Your task to perform on an android device: toggle location history Image 0: 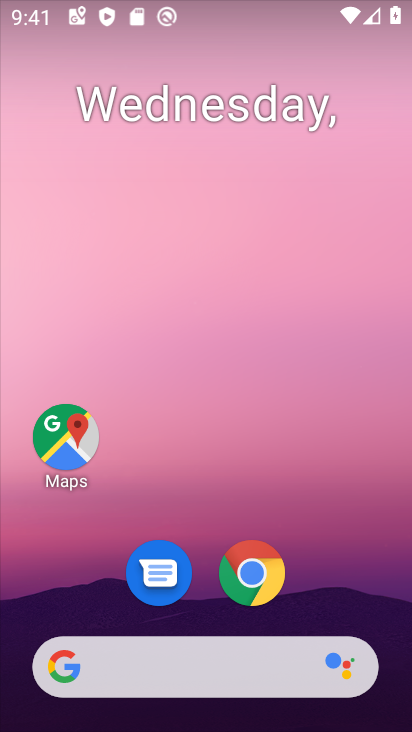
Step 0: drag from (376, 564) to (370, 219)
Your task to perform on an android device: toggle location history Image 1: 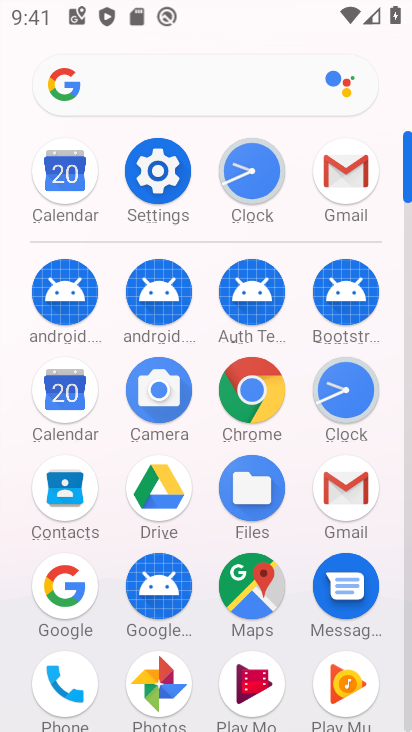
Step 1: click (138, 171)
Your task to perform on an android device: toggle location history Image 2: 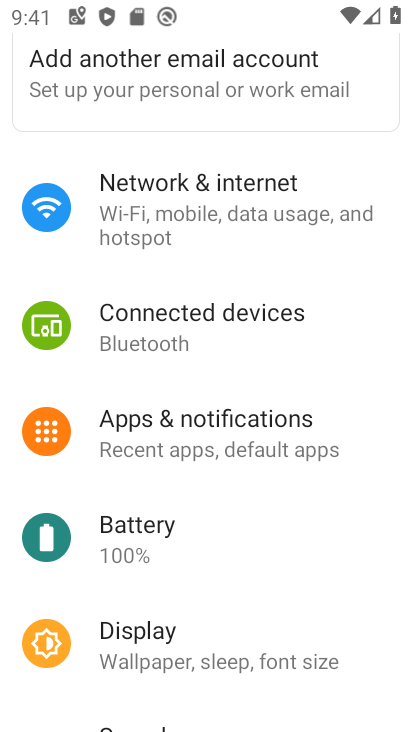
Step 2: drag from (344, 245) to (357, 312)
Your task to perform on an android device: toggle location history Image 3: 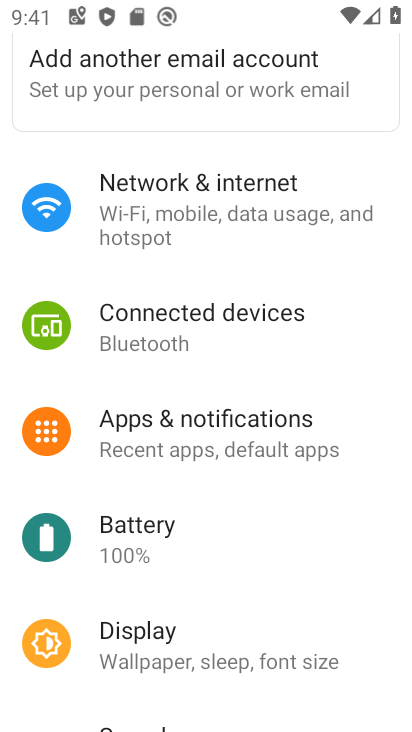
Step 3: drag from (383, 332) to (382, 281)
Your task to perform on an android device: toggle location history Image 4: 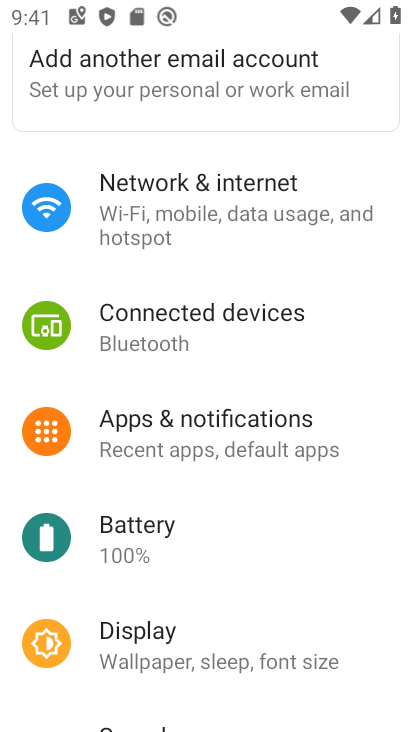
Step 4: drag from (370, 503) to (365, 285)
Your task to perform on an android device: toggle location history Image 5: 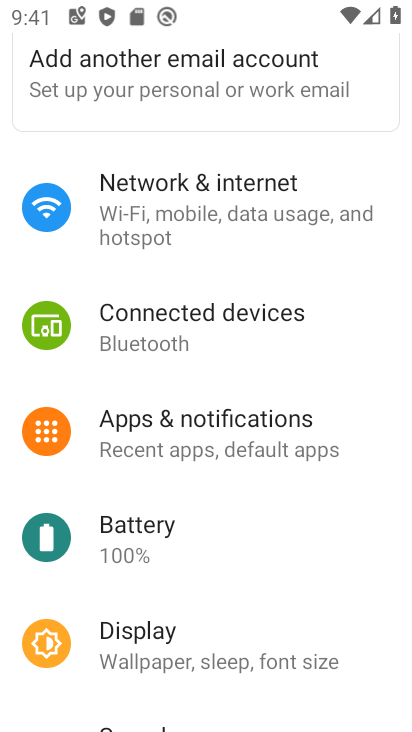
Step 5: drag from (366, 638) to (362, 322)
Your task to perform on an android device: toggle location history Image 6: 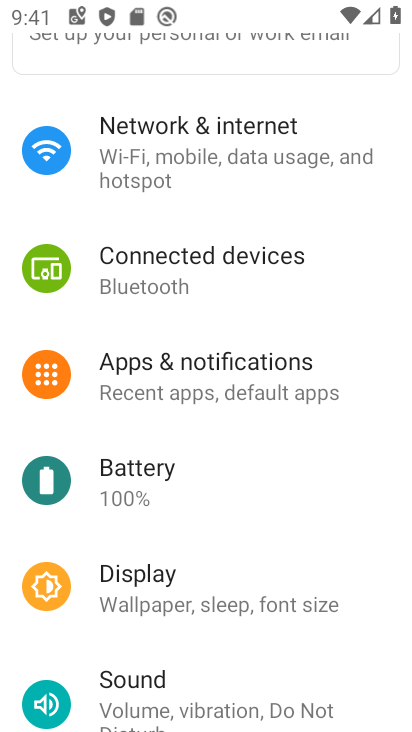
Step 6: drag from (360, 613) to (386, 226)
Your task to perform on an android device: toggle location history Image 7: 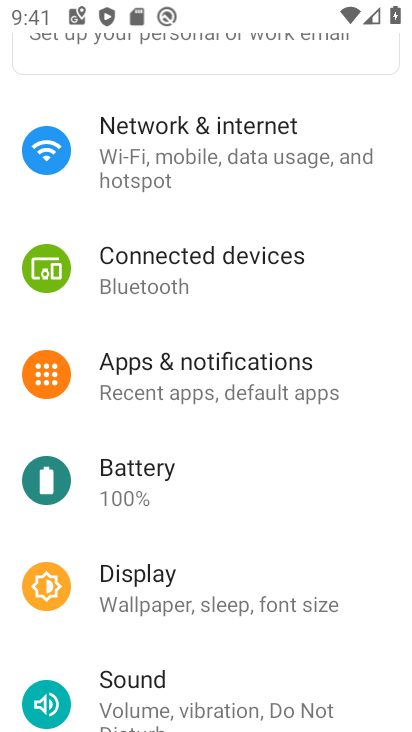
Step 7: drag from (368, 475) to (351, 279)
Your task to perform on an android device: toggle location history Image 8: 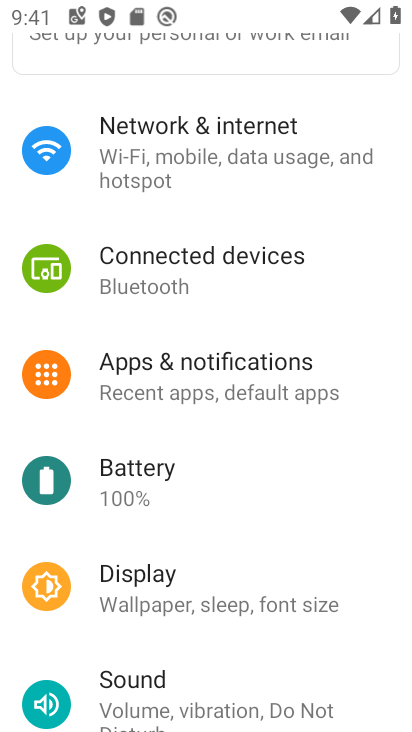
Step 8: drag from (398, 372) to (402, 275)
Your task to perform on an android device: toggle location history Image 9: 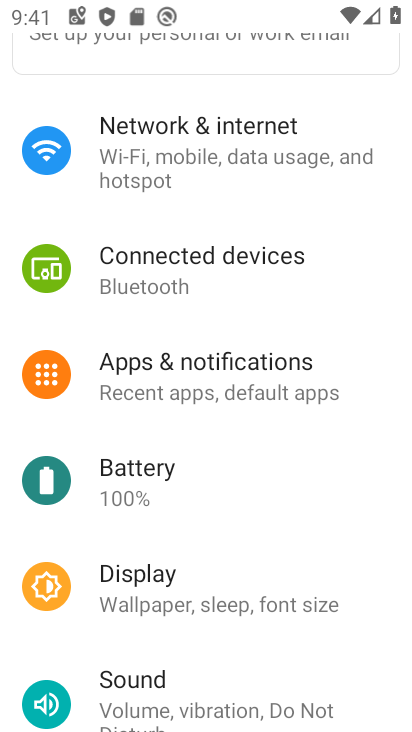
Step 9: drag from (390, 686) to (387, 273)
Your task to perform on an android device: toggle location history Image 10: 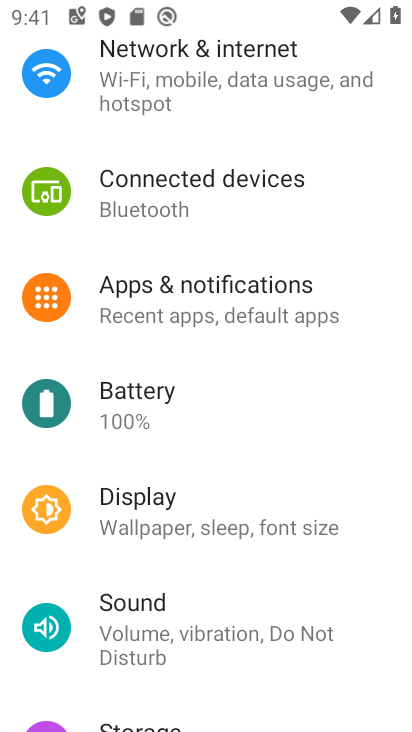
Step 10: drag from (382, 682) to (366, 231)
Your task to perform on an android device: toggle location history Image 11: 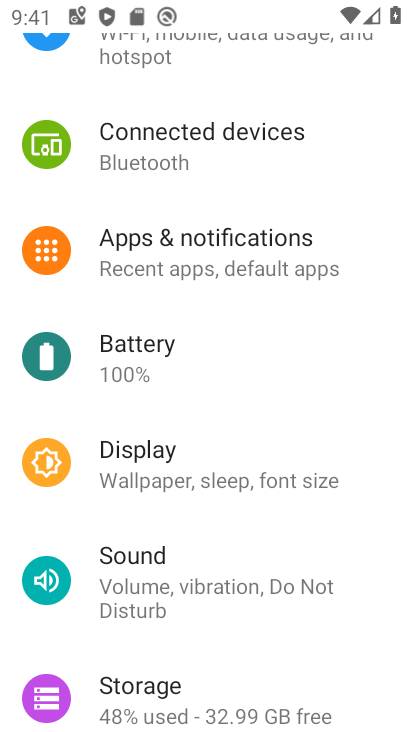
Step 11: click (397, 247)
Your task to perform on an android device: toggle location history Image 12: 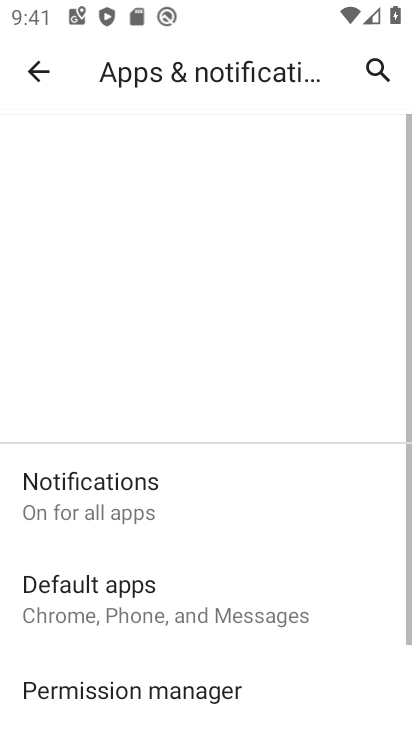
Step 12: drag from (367, 680) to (385, 368)
Your task to perform on an android device: toggle location history Image 13: 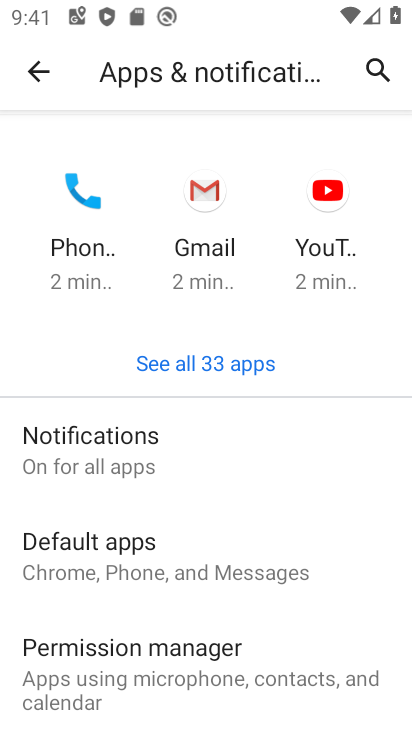
Step 13: press back button
Your task to perform on an android device: toggle location history Image 14: 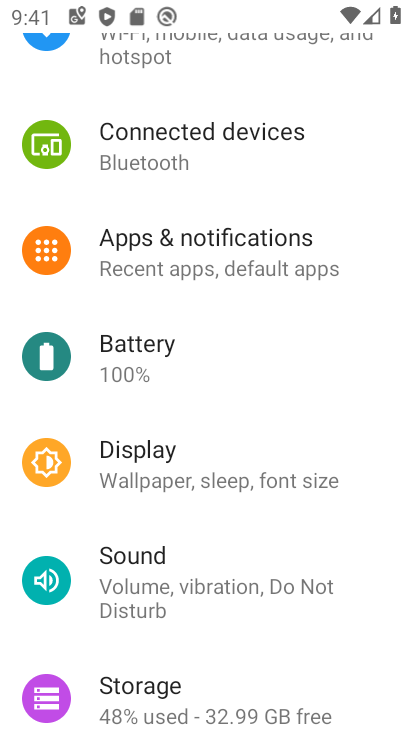
Step 14: drag from (366, 673) to (387, 232)
Your task to perform on an android device: toggle location history Image 15: 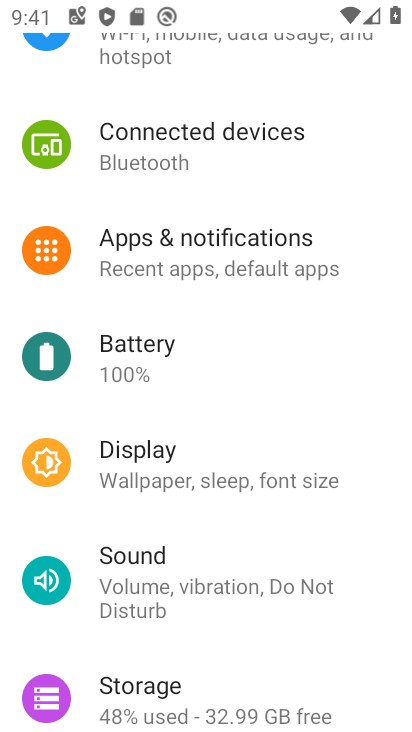
Step 15: drag from (395, 646) to (411, 223)
Your task to perform on an android device: toggle location history Image 16: 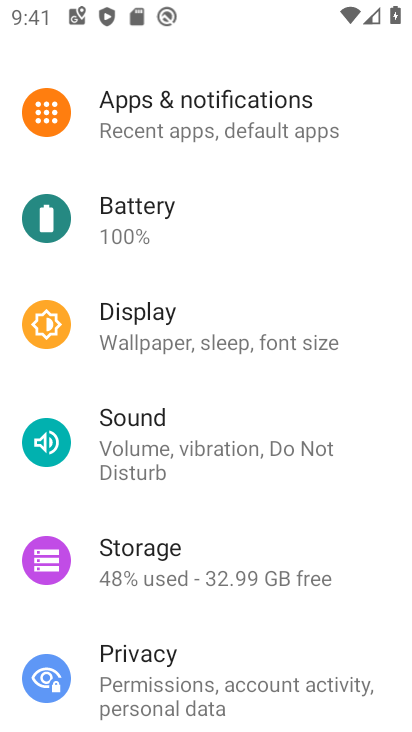
Step 16: drag from (379, 693) to (356, 304)
Your task to perform on an android device: toggle location history Image 17: 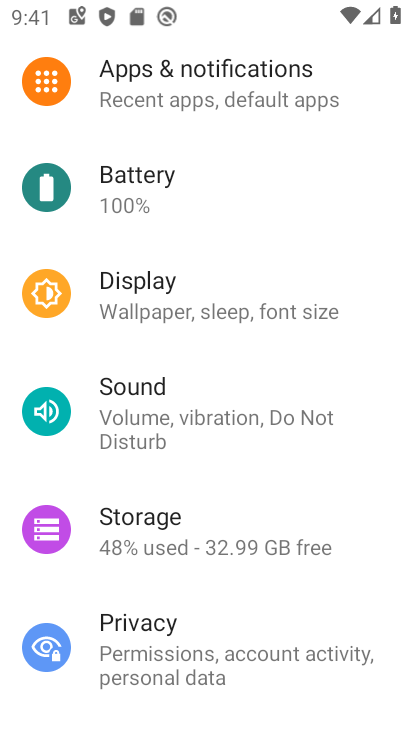
Step 17: drag from (386, 684) to (380, 343)
Your task to perform on an android device: toggle location history Image 18: 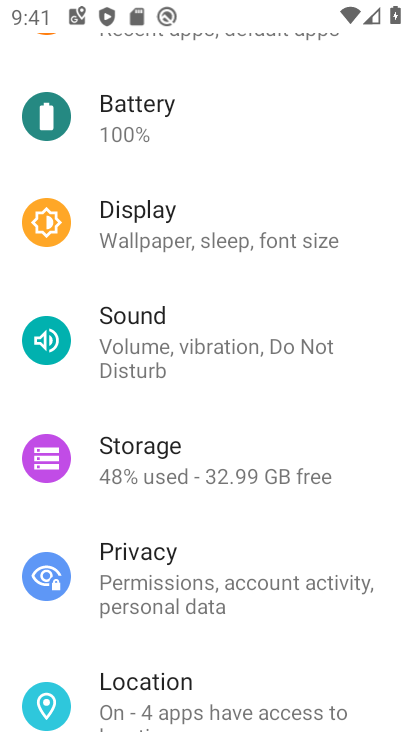
Step 18: click (154, 686)
Your task to perform on an android device: toggle location history Image 19: 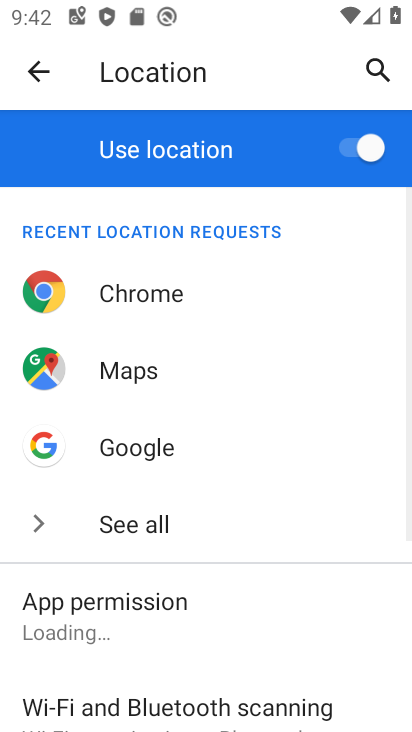
Step 19: drag from (308, 659) to (332, 285)
Your task to perform on an android device: toggle location history Image 20: 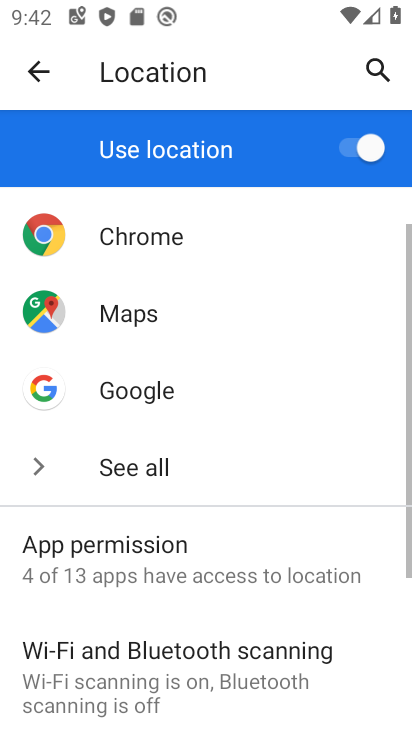
Step 20: drag from (337, 444) to (352, 275)
Your task to perform on an android device: toggle location history Image 21: 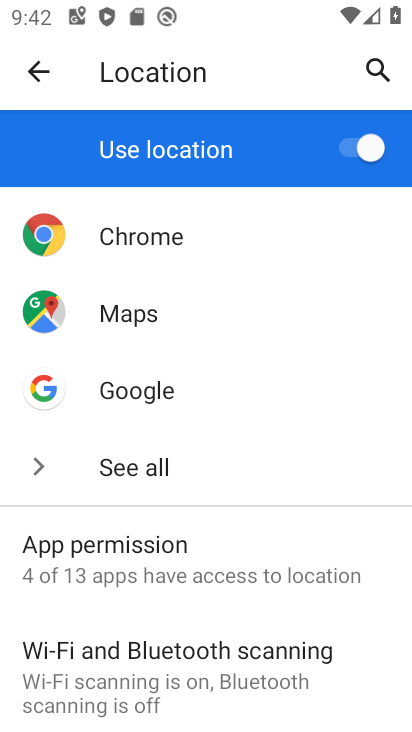
Step 21: drag from (382, 435) to (387, 256)
Your task to perform on an android device: toggle location history Image 22: 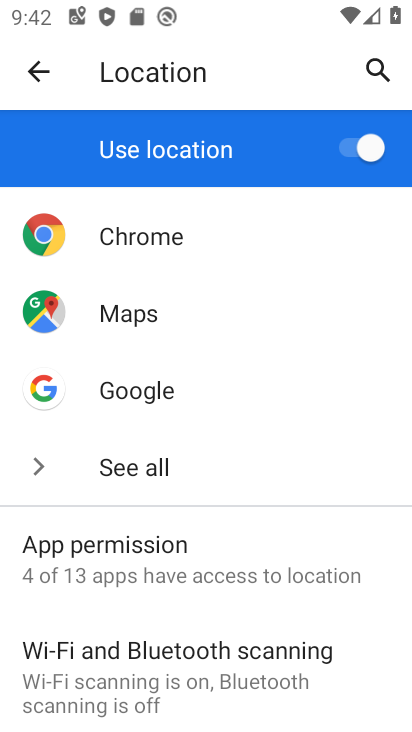
Step 22: drag from (374, 628) to (366, 307)
Your task to perform on an android device: toggle location history Image 23: 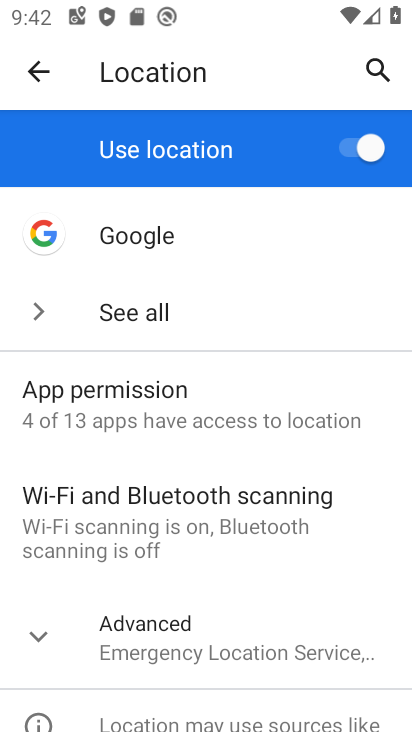
Step 23: click (58, 636)
Your task to perform on an android device: toggle location history Image 24: 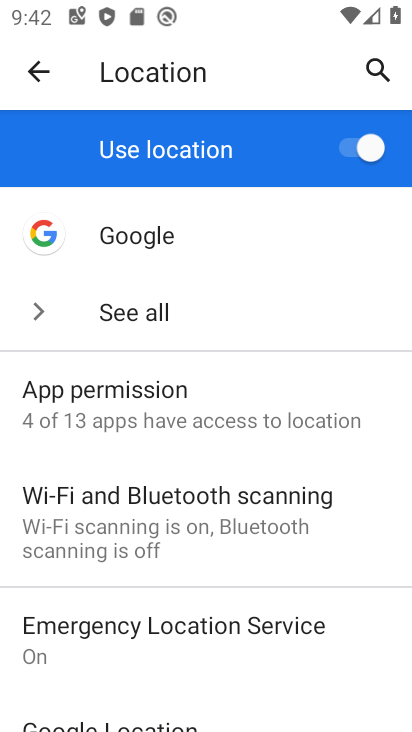
Step 24: drag from (342, 662) to (329, 333)
Your task to perform on an android device: toggle location history Image 25: 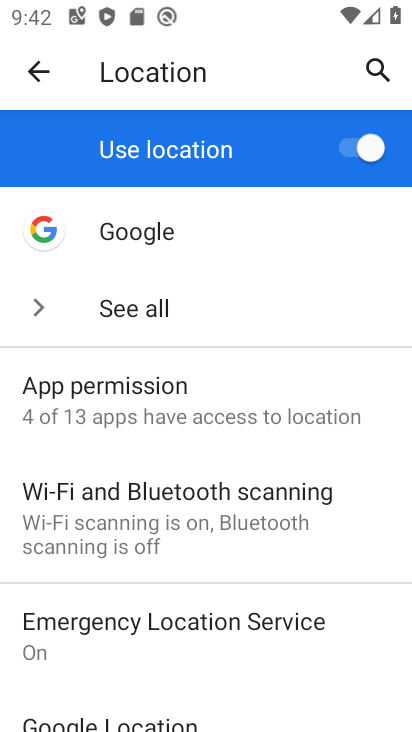
Step 25: drag from (340, 538) to (360, 249)
Your task to perform on an android device: toggle location history Image 26: 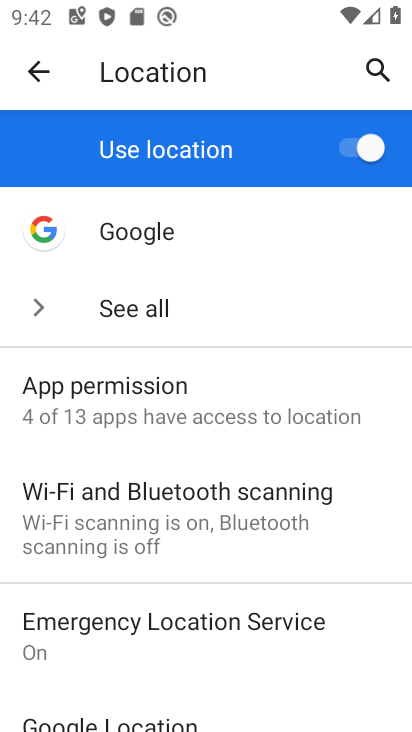
Step 26: click (337, 318)
Your task to perform on an android device: toggle location history Image 27: 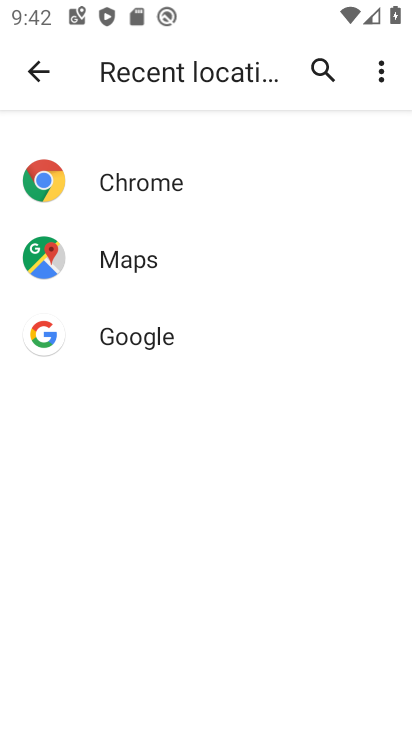
Step 27: click (36, 78)
Your task to perform on an android device: toggle location history Image 28: 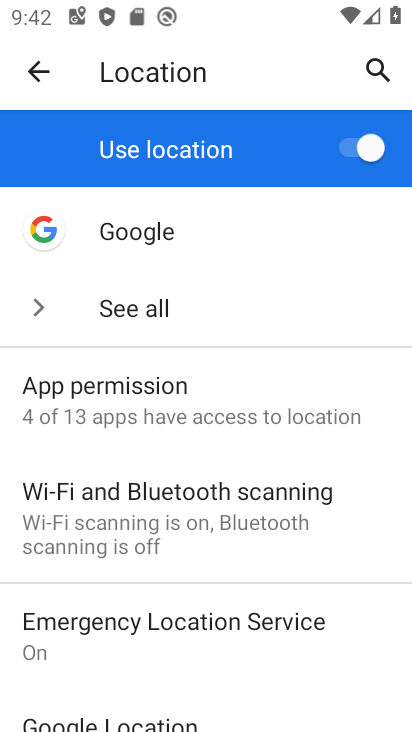
Step 28: drag from (359, 543) to (373, 315)
Your task to perform on an android device: toggle location history Image 29: 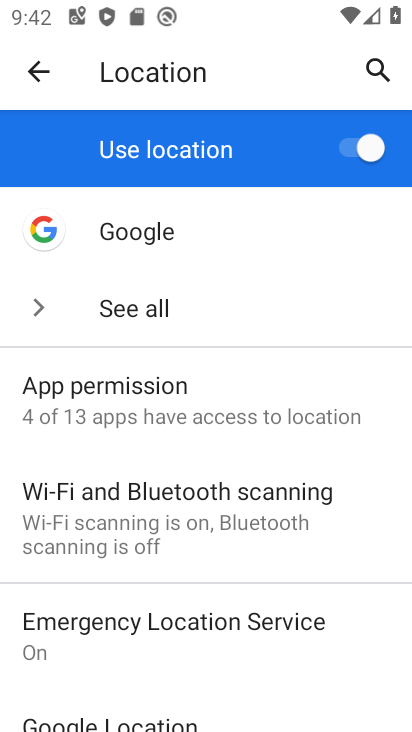
Step 29: drag from (369, 633) to (365, 286)
Your task to perform on an android device: toggle location history Image 30: 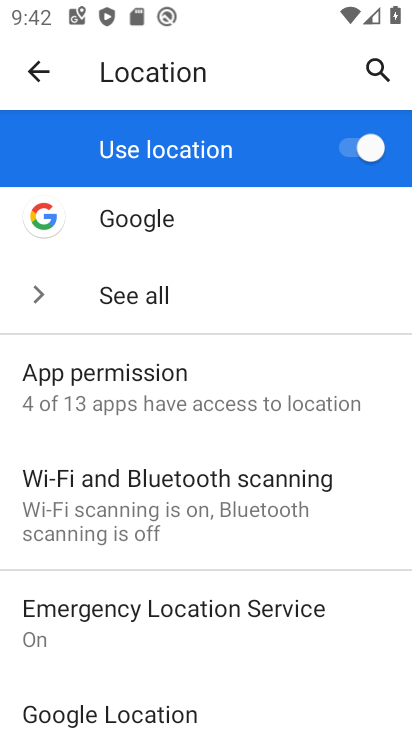
Step 30: drag from (348, 651) to (347, 257)
Your task to perform on an android device: toggle location history Image 31: 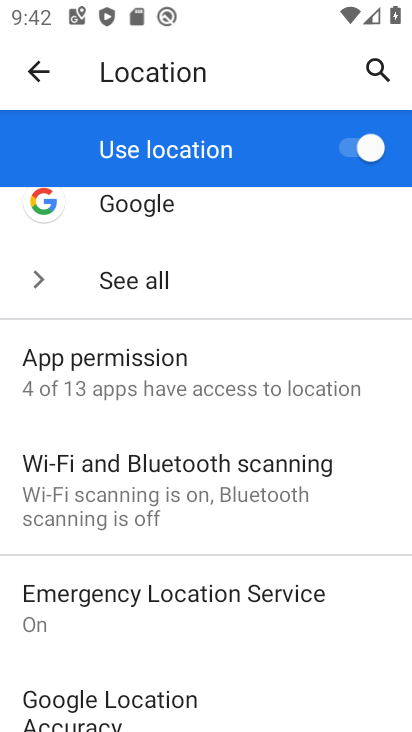
Step 31: drag from (309, 650) to (330, 286)
Your task to perform on an android device: toggle location history Image 32: 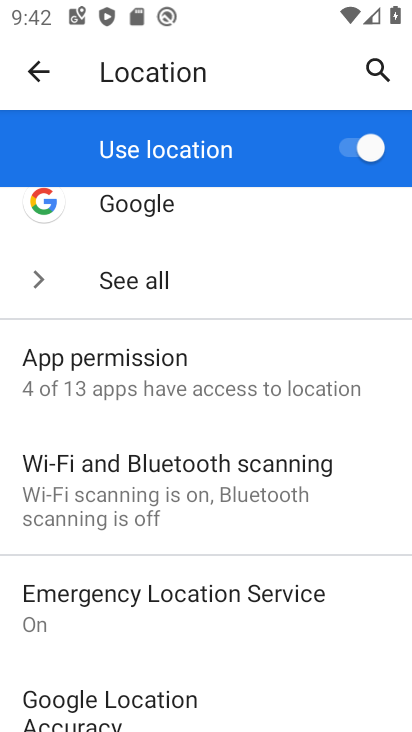
Step 32: drag from (372, 499) to (382, 303)
Your task to perform on an android device: toggle location history Image 33: 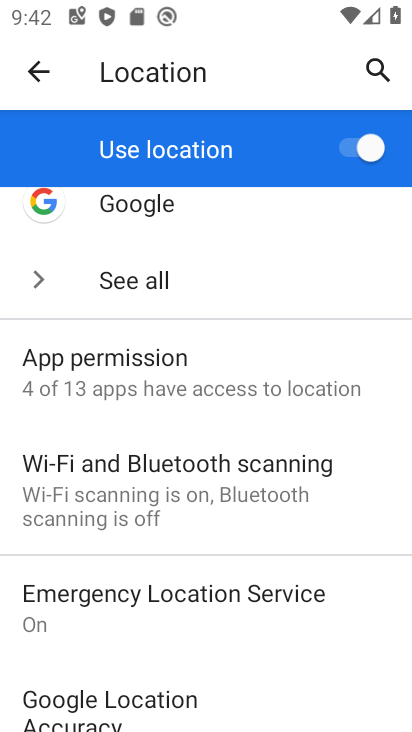
Step 33: drag from (375, 664) to (361, 274)
Your task to perform on an android device: toggle location history Image 34: 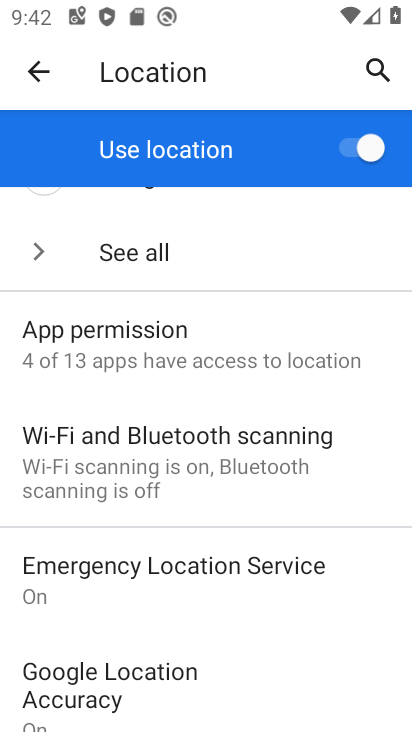
Step 34: drag from (354, 655) to (370, 203)
Your task to perform on an android device: toggle location history Image 35: 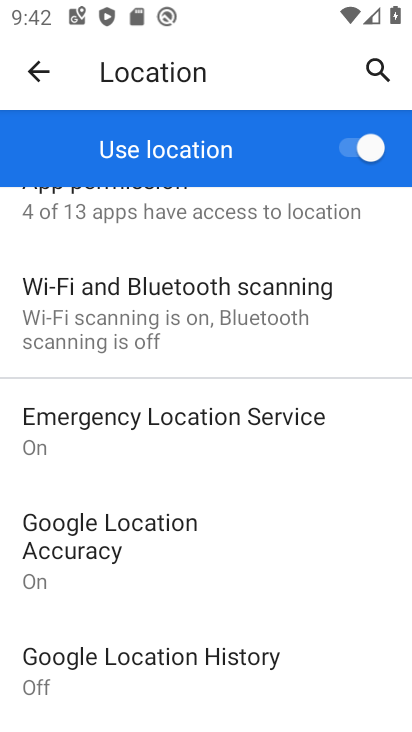
Step 35: click (104, 655)
Your task to perform on an android device: toggle location history Image 36: 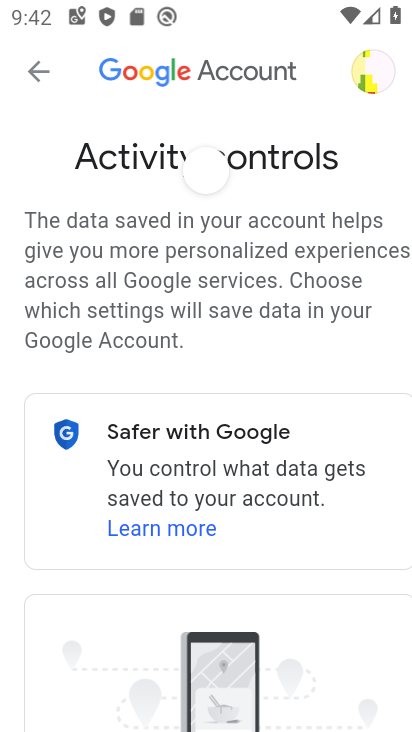
Step 36: drag from (318, 497) to (309, 282)
Your task to perform on an android device: toggle location history Image 37: 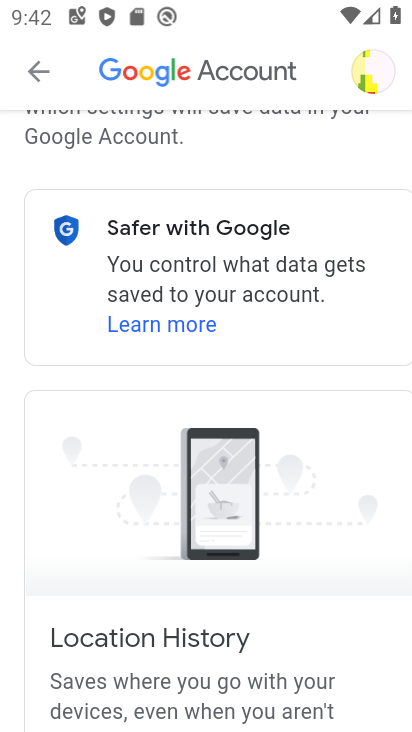
Step 37: drag from (298, 479) to (301, 258)
Your task to perform on an android device: toggle location history Image 38: 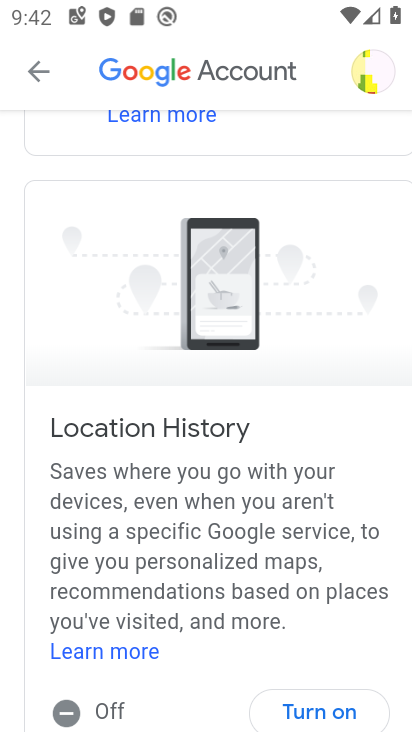
Step 38: drag from (310, 617) to (323, 338)
Your task to perform on an android device: toggle location history Image 39: 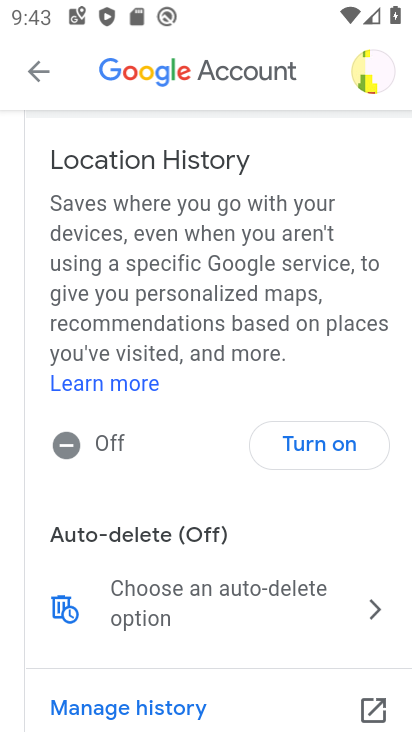
Step 39: click (322, 441)
Your task to perform on an android device: toggle location history Image 40: 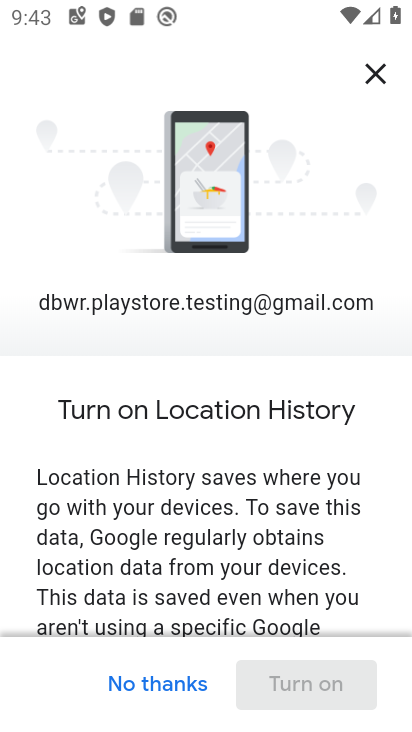
Step 40: click (277, 685)
Your task to perform on an android device: toggle location history Image 41: 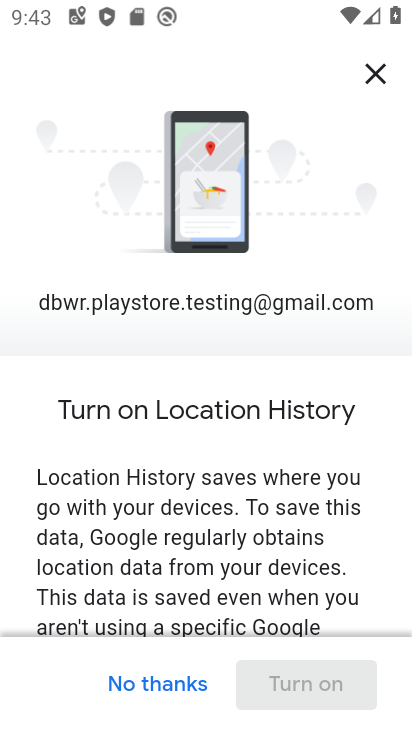
Step 41: drag from (253, 595) to (270, 231)
Your task to perform on an android device: toggle location history Image 42: 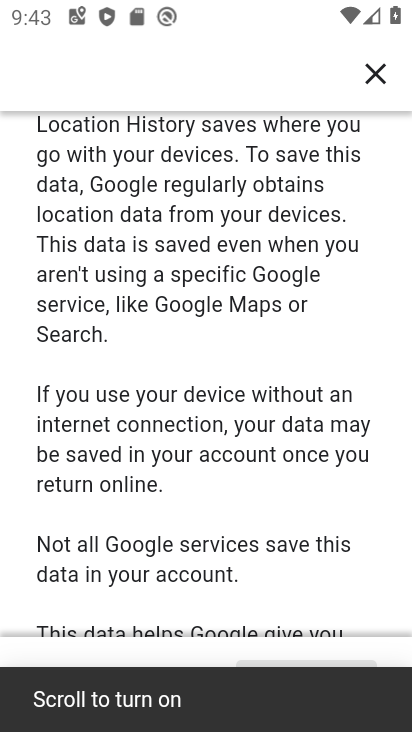
Step 42: drag from (246, 402) to (243, 242)
Your task to perform on an android device: toggle location history Image 43: 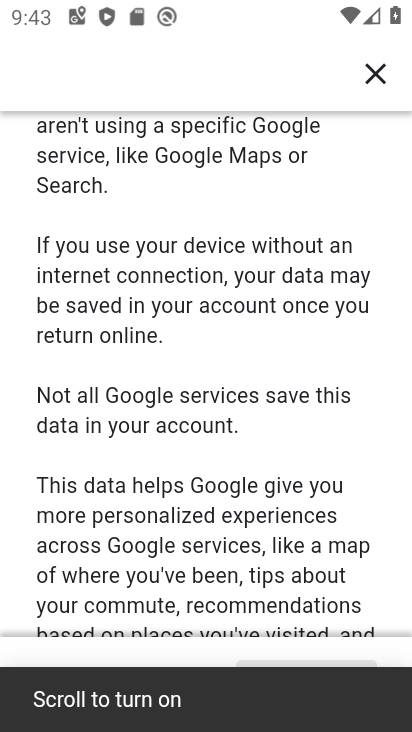
Step 43: drag from (229, 596) to (249, 226)
Your task to perform on an android device: toggle location history Image 44: 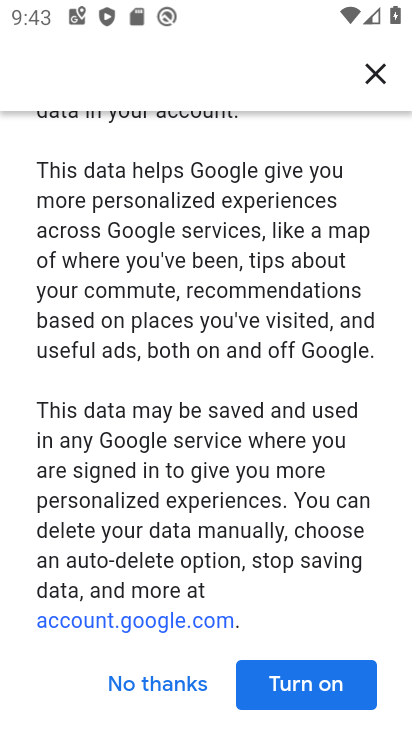
Step 44: click (293, 683)
Your task to perform on an android device: toggle location history Image 45: 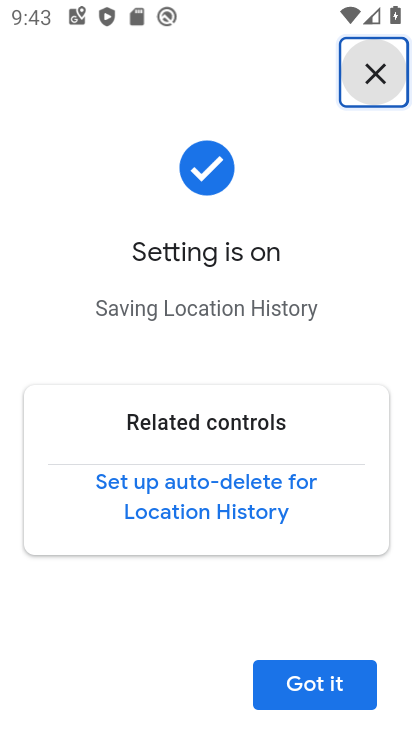
Step 45: click (293, 682)
Your task to perform on an android device: toggle location history Image 46: 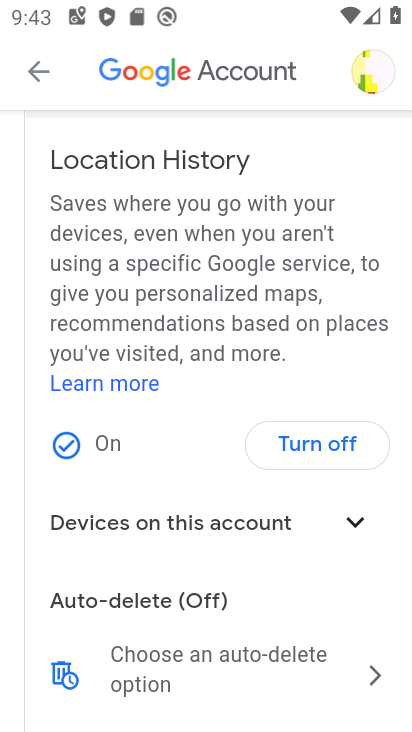
Step 46: task complete